Your task to perform on an android device: turn on improve location accuracy Image 0: 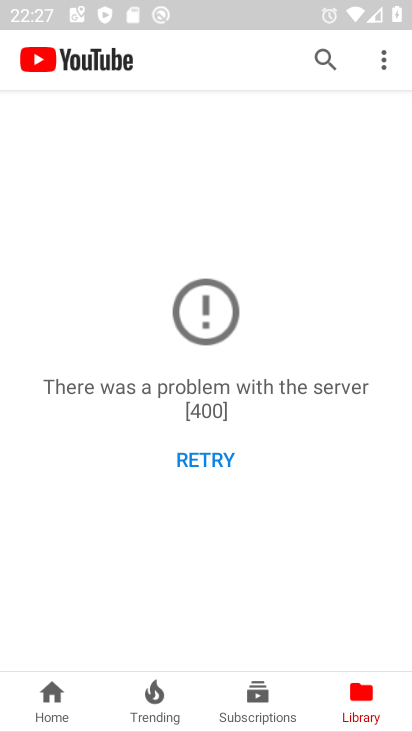
Step 0: press home button
Your task to perform on an android device: turn on improve location accuracy Image 1: 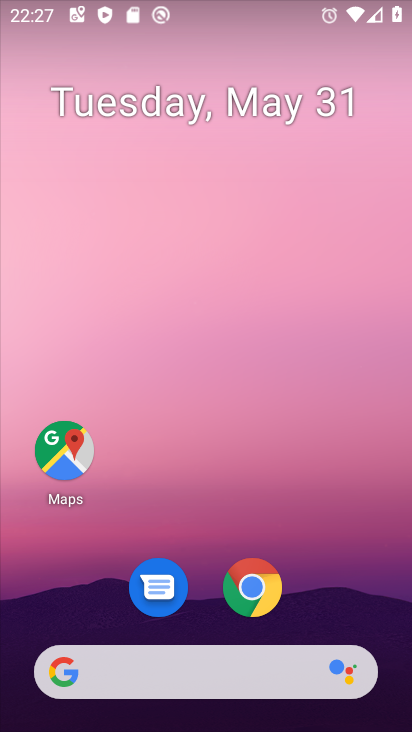
Step 1: drag from (336, 602) to (306, 288)
Your task to perform on an android device: turn on improve location accuracy Image 2: 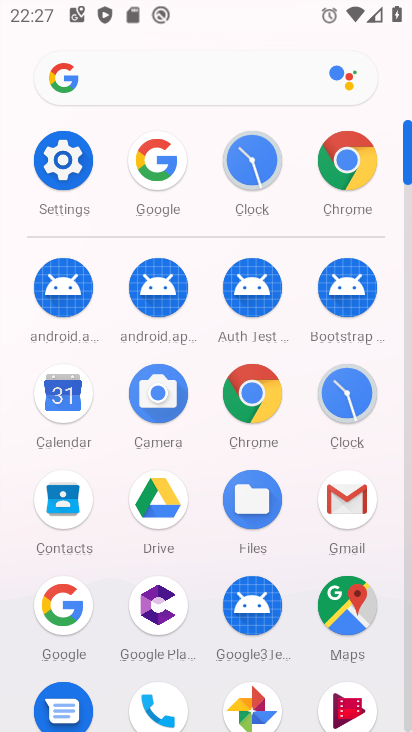
Step 2: click (64, 204)
Your task to perform on an android device: turn on improve location accuracy Image 3: 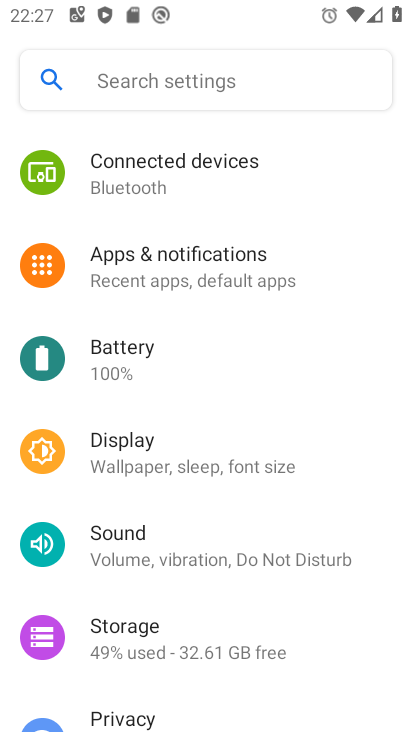
Step 3: drag from (267, 430) to (260, 375)
Your task to perform on an android device: turn on improve location accuracy Image 4: 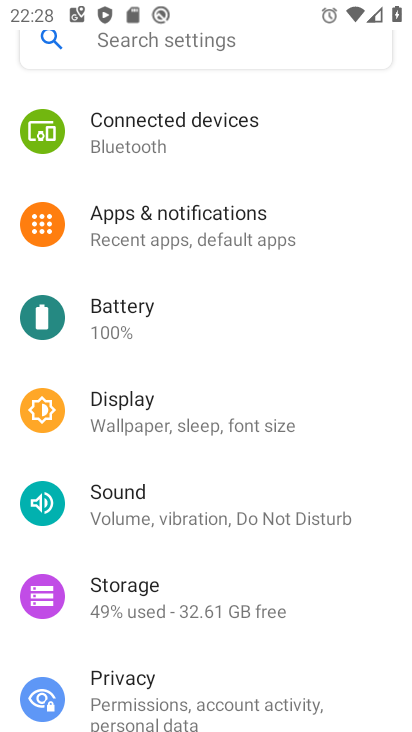
Step 4: drag from (292, 548) to (283, 352)
Your task to perform on an android device: turn on improve location accuracy Image 5: 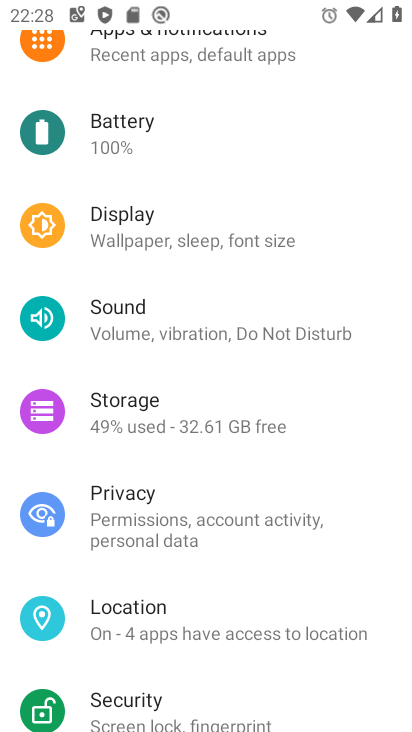
Step 5: drag from (306, 585) to (311, 463)
Your task to perform on an android device: turn on improve location accuracy Image 6: 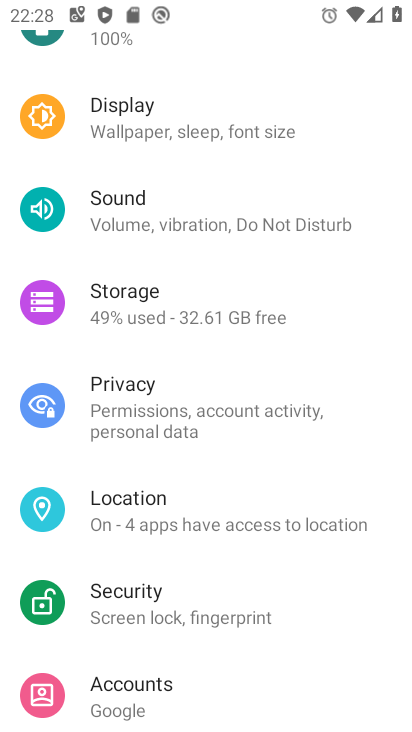
Step 6: click (265, 527)
Your task to perform on an android device: turn on improve location accuracy Image 7: 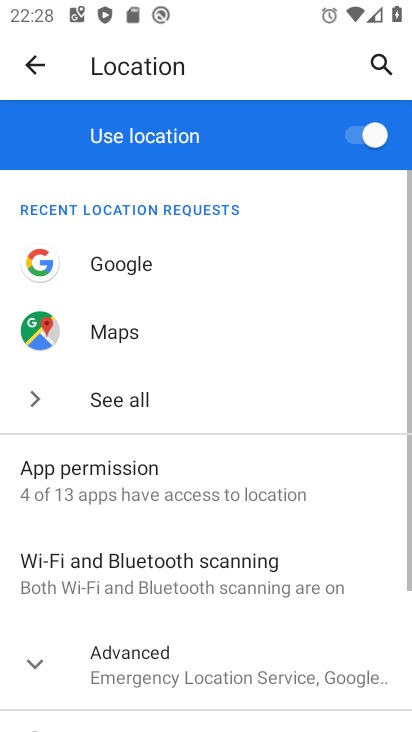
Step 7: click (270, 665)
Your task to perform on an android device: turn on improve location accuracy Image 8: 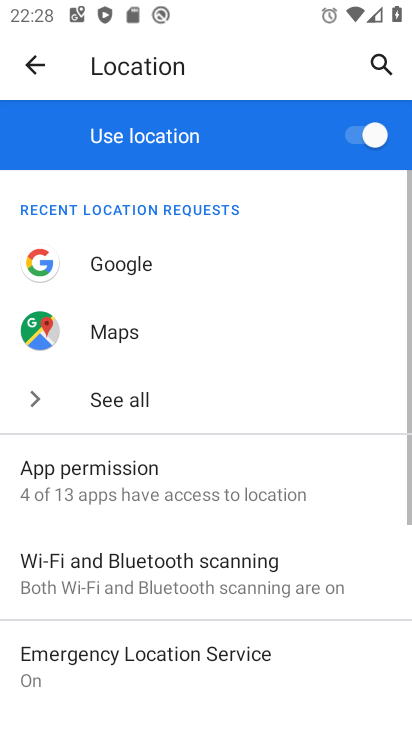
Step 8: drag from (270, 648) to (276, 464)
Your task to perform on an android device: turn on improve location accuracy Image 9: 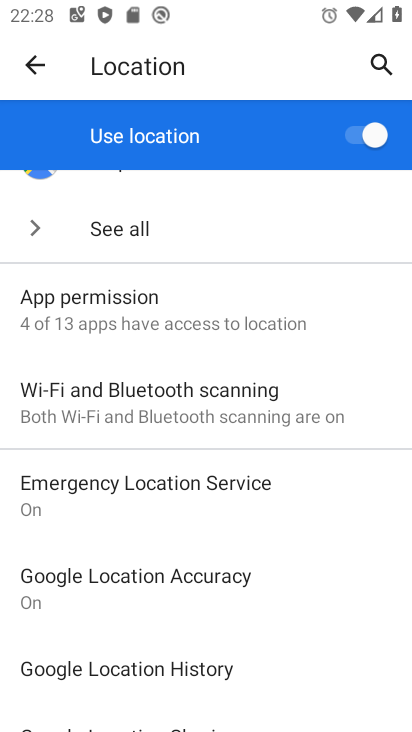
Step 9: click (222, 590)
Your task to perform on an android device: turn on improve location accuracy Image 10: 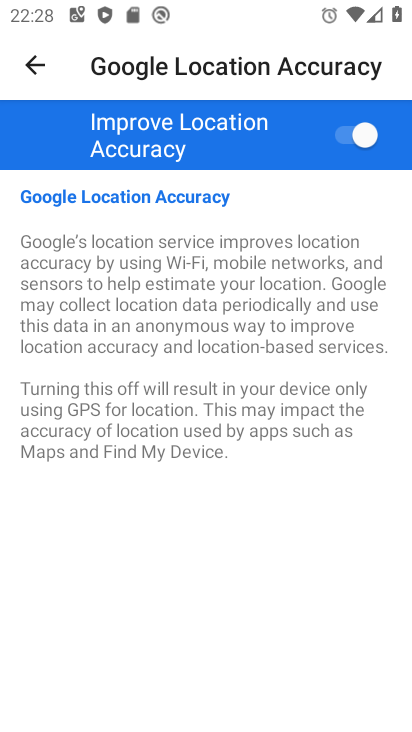
Step 10: task complete